Your task to perform on an android device: Open Google Chrome and open the bookmarks view Image 0: 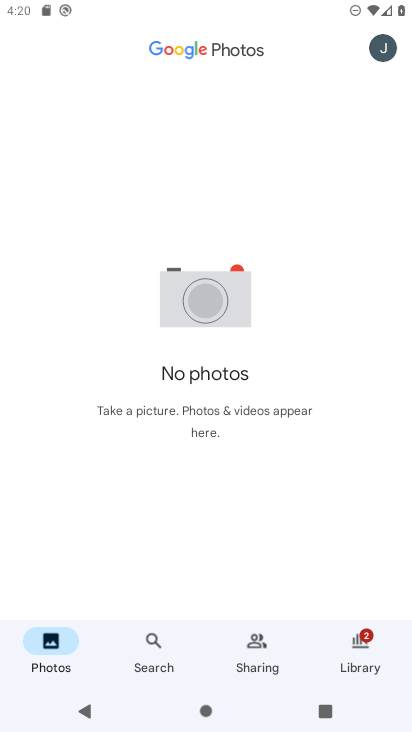
Step 0: press home button
Your task to perform on an android device: Open Google Chrome and open the bookmarks view Image 1: 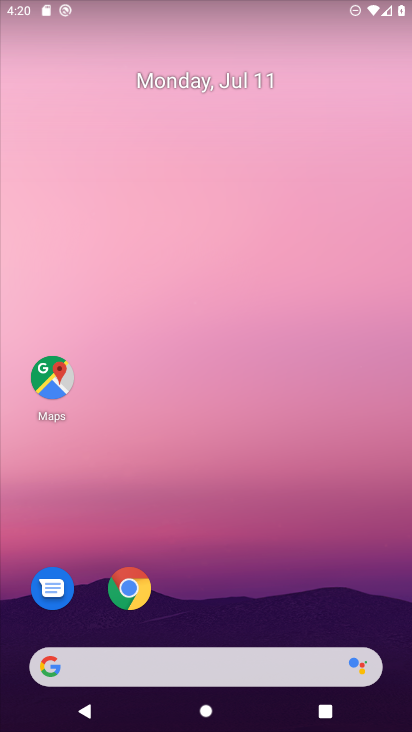
Step 1: drag from (253, 592) to (249, 76)
Your task to perform on an android device: Open Google Chrome and open the bookmarks view Image 2: 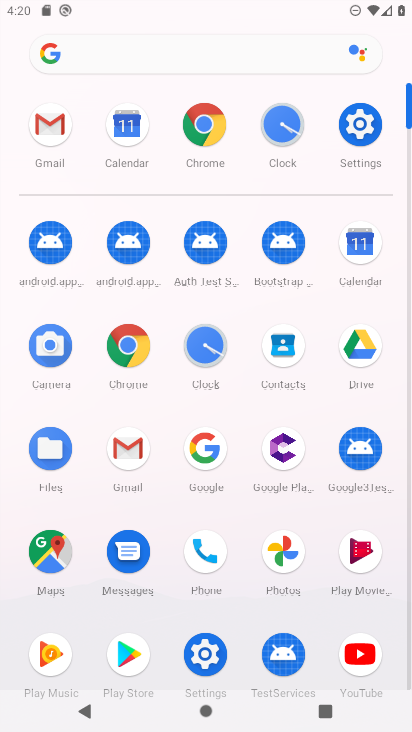
Step 2: click (220, 113)
Your task to perform on an android device: Open Google Chrome and open the bookmarks view Image 3: 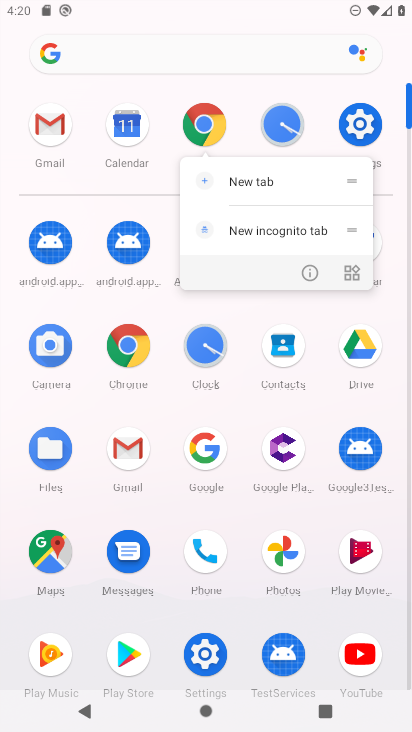
Step 3: click (200, 106)
Your task to perform on an android device: Open Google Chrome and open the bookmarks view Image 4: 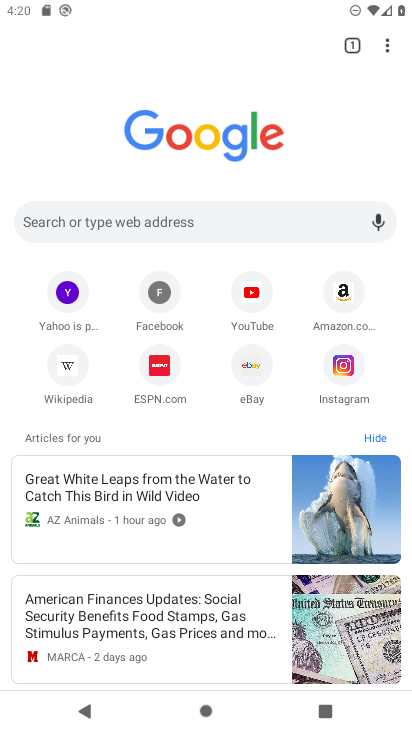
Step 4: task complete